Your task to perform on an android device: open the mobile data screen to see how much data has been used Image 0: 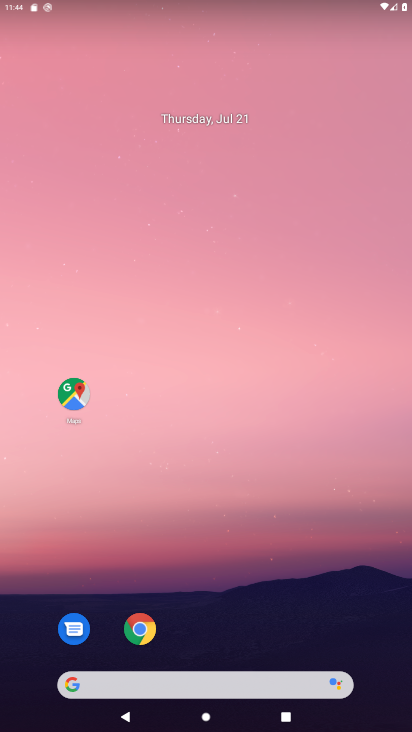
Step 0: drag from (201, 628) to (264, 8)
Your task to perform on an android device: open the mobile data screen to see how much data has been used Image 1: 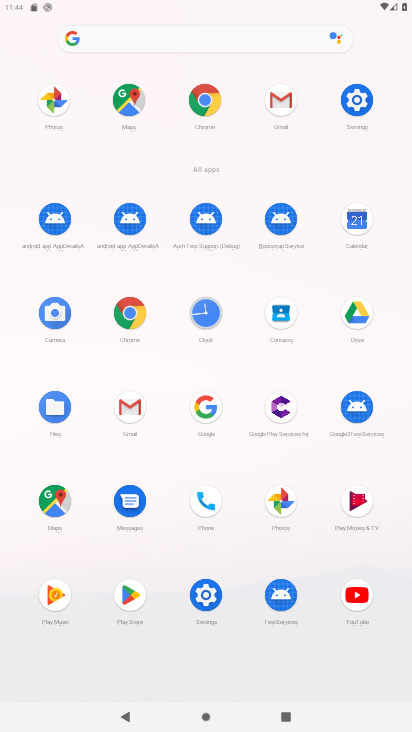
Step 1: click (361, 101)
Your task to perform on an android device: open the mobile data screen to see how much data has been used Image 2: 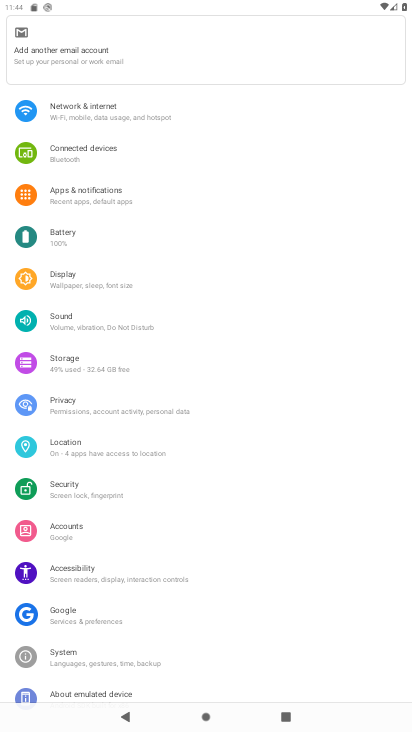
Step 2: click (99, 117)
Your task to perform on an android device: open the mobile data screen to see how much data has been used Image 3: 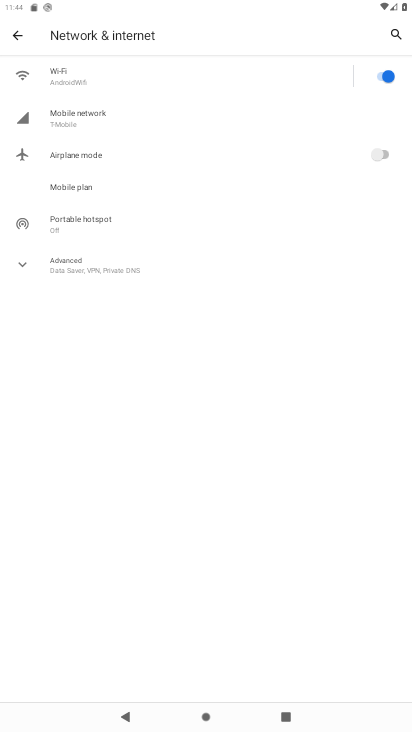
Step 3: click (87, 128)
Your task to perform on an android device: open the mobile data screen to see how much data has been used Image 4: 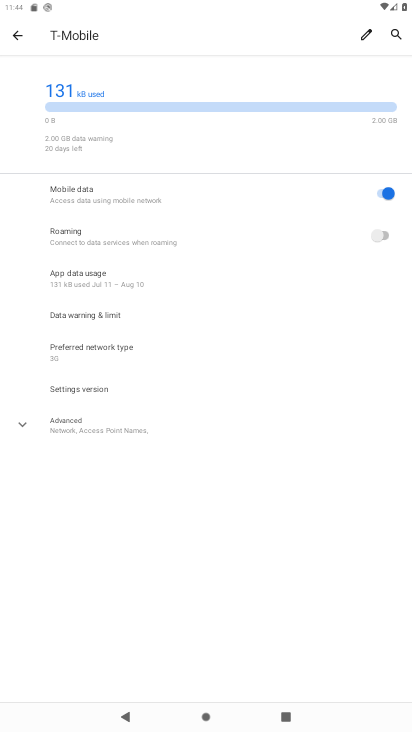
Step 4: click (96, 283)
Your task to perform on an android device: open the mobile data screen to see how much data has been used Image 5: 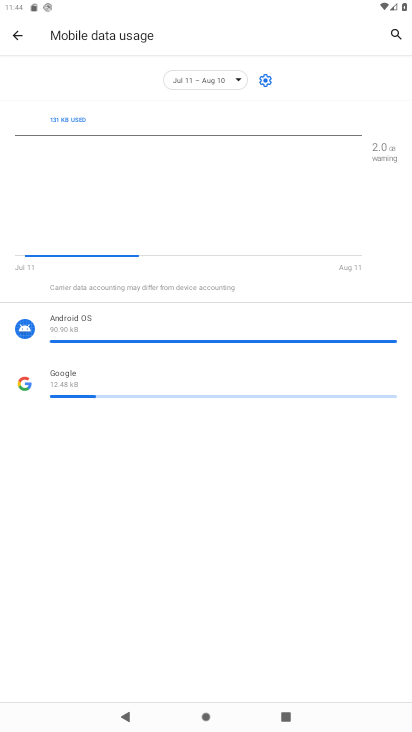
Step 5: task complete